Your task to perform on an android device: Go to settings Image 0: 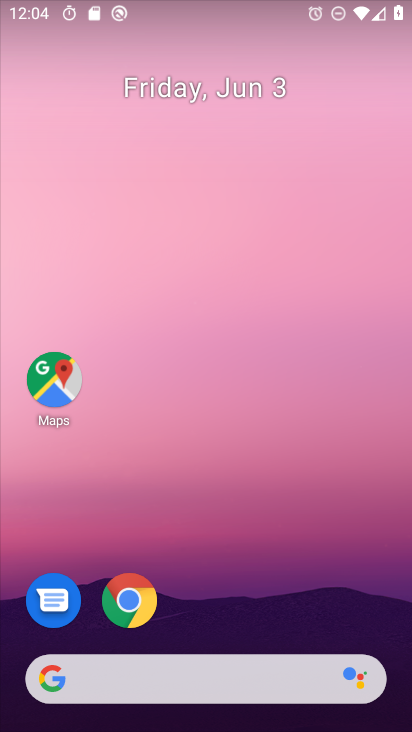
Step 0: drag from (247, 606) to (183, 58)
Your task to perform on an android device: Go to settings Image 1: 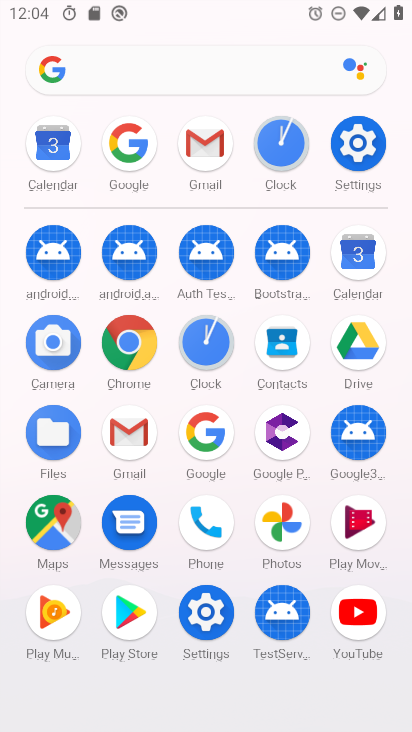
Step 1: click (355, 158)
Your task to perform on an android device: Go to settings Image 2: 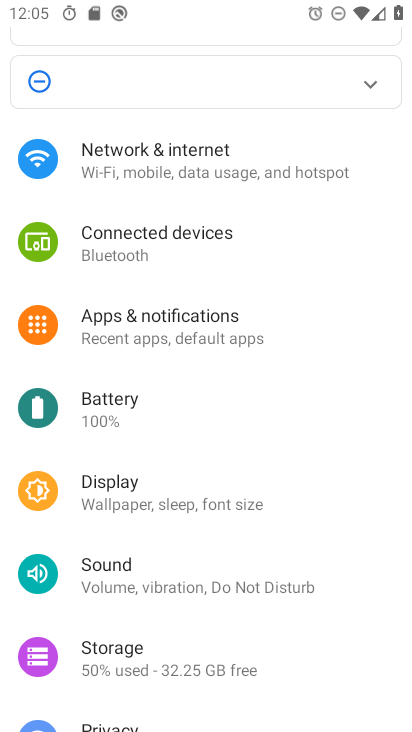
Step 2: task complete